Your task to perform on an android device: turn off translation in the chrome app Image 0: 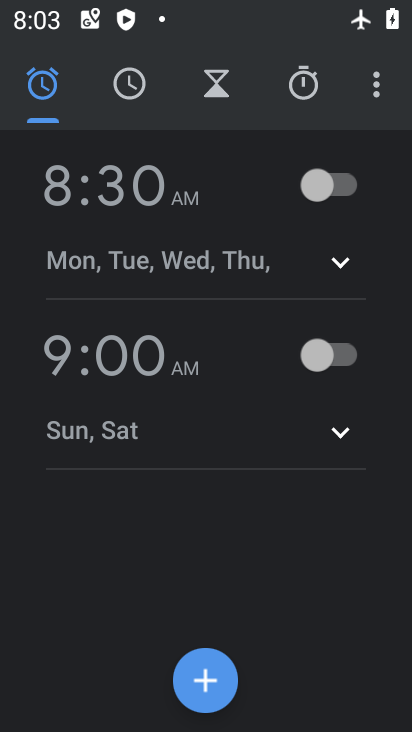
Step 0: press home button
Your task to perform on an android device: turn off translation in the chrome app Image 1: 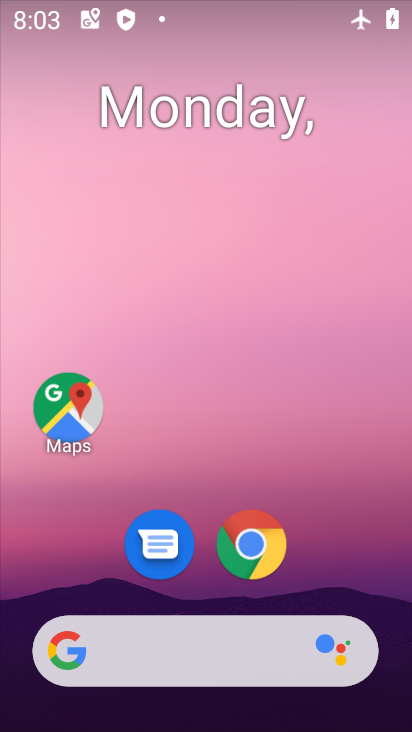
Step 1: click (251, 538)
Your task to perform on an android device: turn off translation in the chrome app Image 2: 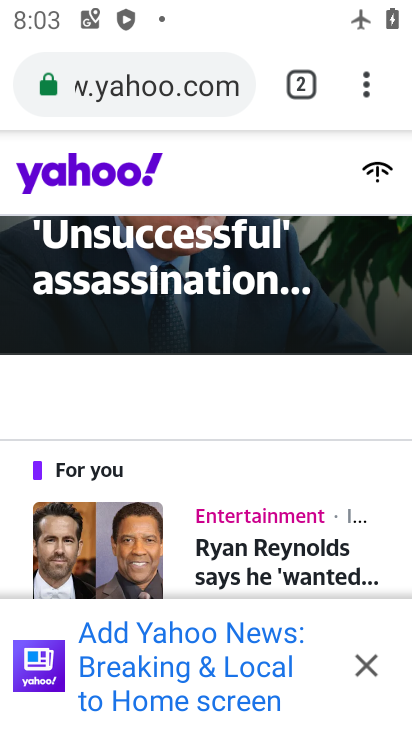
Step 2: click (366, 80)
Your task to perform on an android device: turn off translation in the chrome app Image 3: 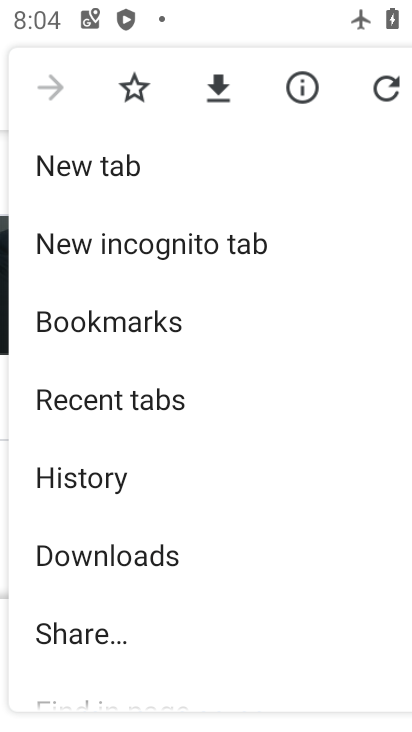
Step 3: drag from (233, 484) to (237, 159)
Your task to perform on an android device: turn off translation in the chrome app Image 4: 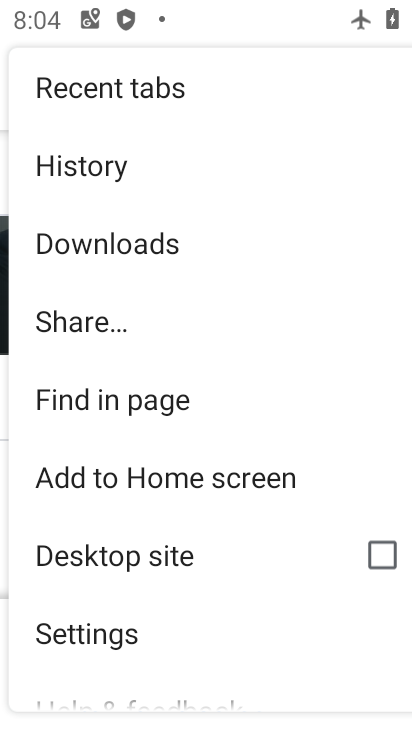
Step 4: click (82, 636)
Your task to perform on an android device: turn off translation in the chrome app Image 5: 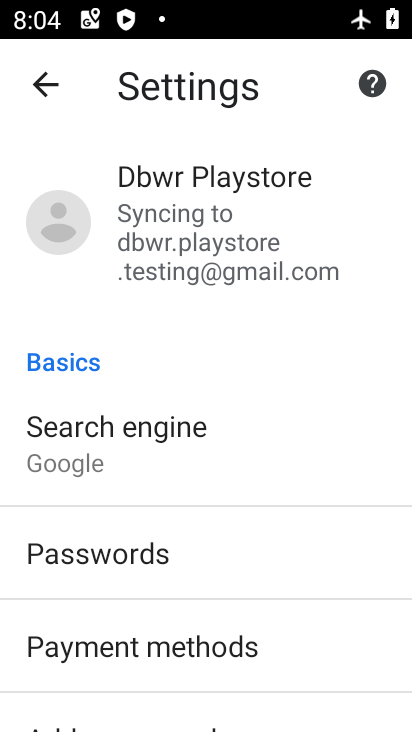
Step 5: drag from (253, 572) to (246, 240)
Your task to perform on an android device: turn off translation in the chrome app Image 6: 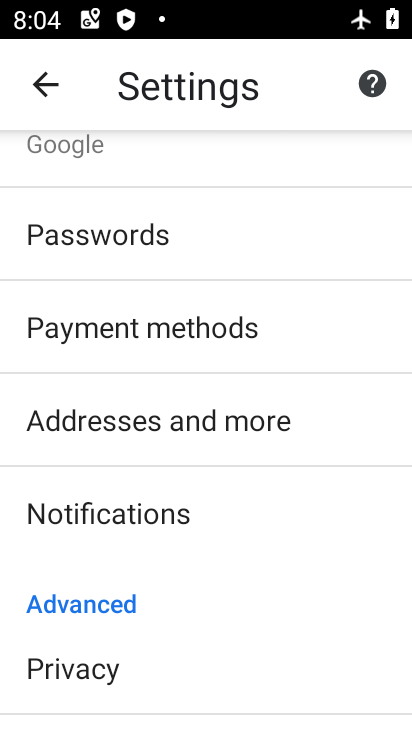
Step 6: drag from (288, 593) to (298, 271)
Your task to perform on an android device: turn off translation in the chrome app Image 7: 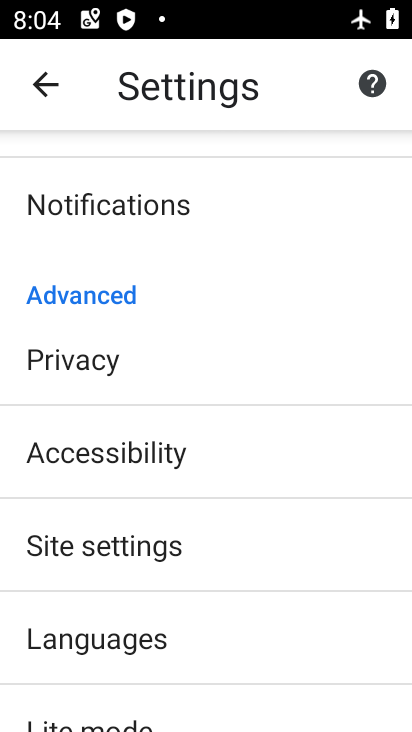
Step 7: click (103, 630)
Your task to perform on an android device: turn off translation in the chrome app Image 8: 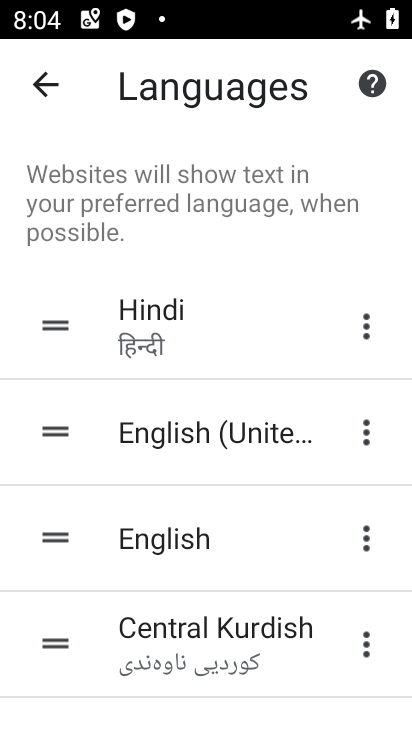
Step 8: task complete